Your task to perform on an android device: change alarm snooze length Image 0: 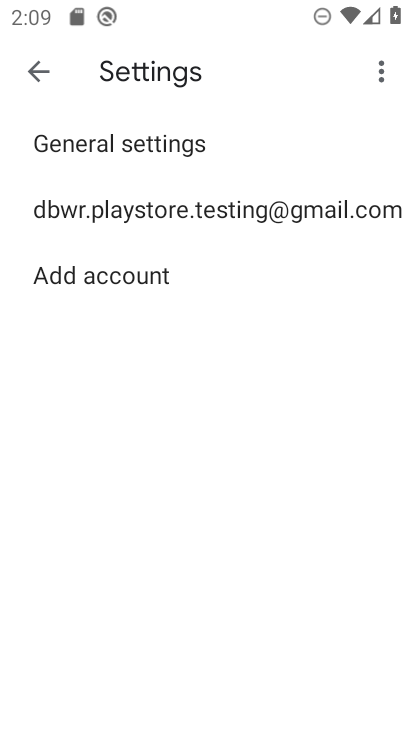
Step 0: press home button
Your task to perform on an android device: change alarm snooze length Image 1: 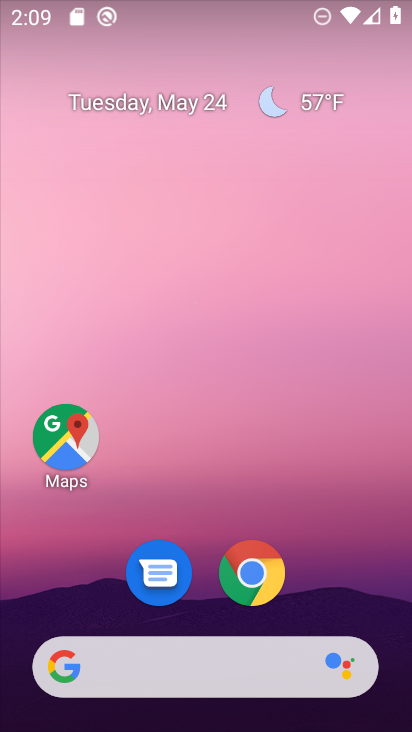
Step 1: drag from (337, 582) to (343, 162)
Your task to perform on an android device: change alarm snooze length Image 2: 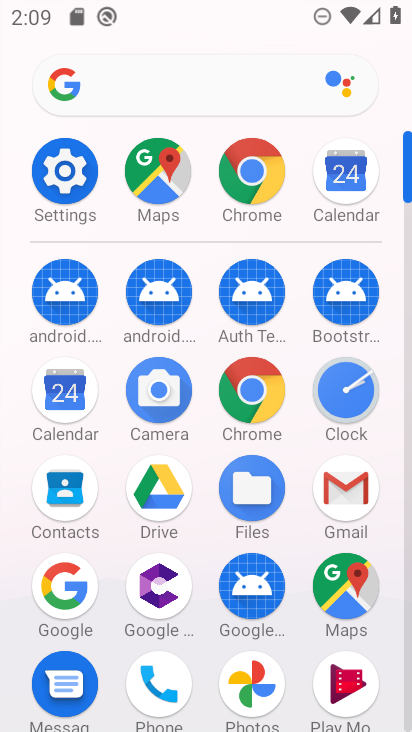
Step 2: click (68, 189)
Your task to perform on an android device: change alarm snooze length Image 3: 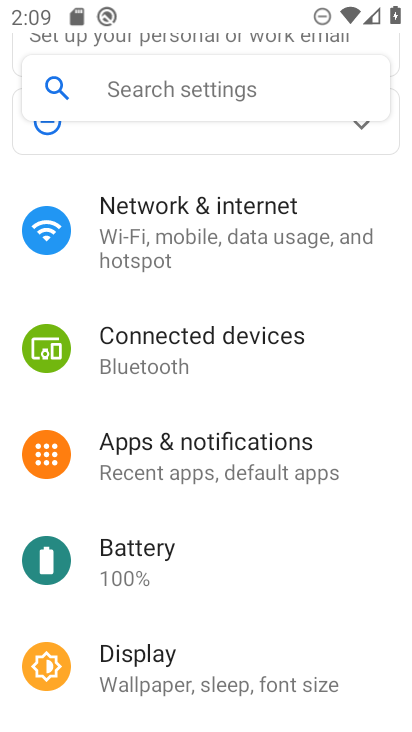
Step 3: drag from (251, 631) to (234, 396)
Your task to perform on an android device: change alarm snooze length Image 4: 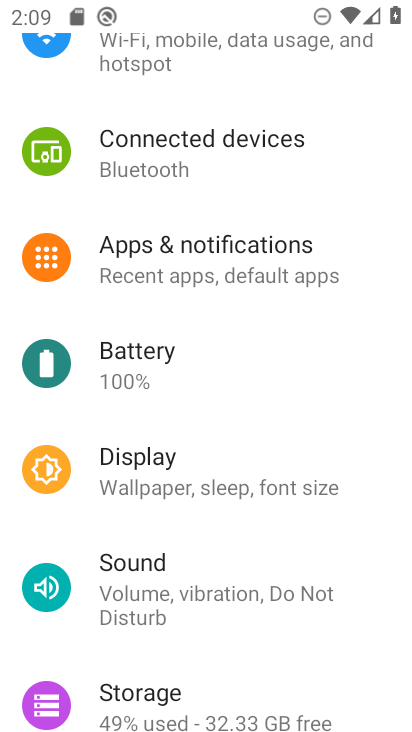
Step 4: press home button
Your task to perform on an android device: change alarm snooze length Image 5: 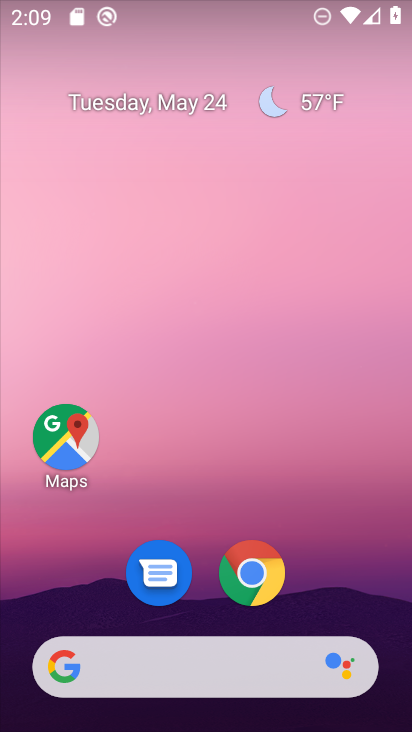
Step 5: drag from (374, 581) to (266, 199)
Your task to perform on an android device: change alarm snooze length Image 6: 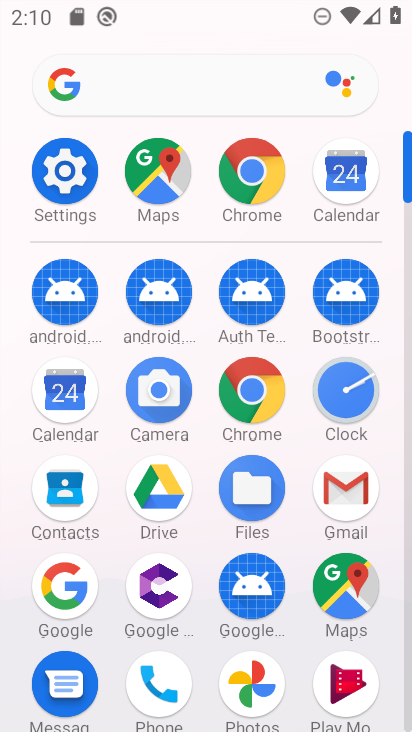
Step 6: click (341, 397)
Your task to perform on an android device: change alarm snooze length Image 7: 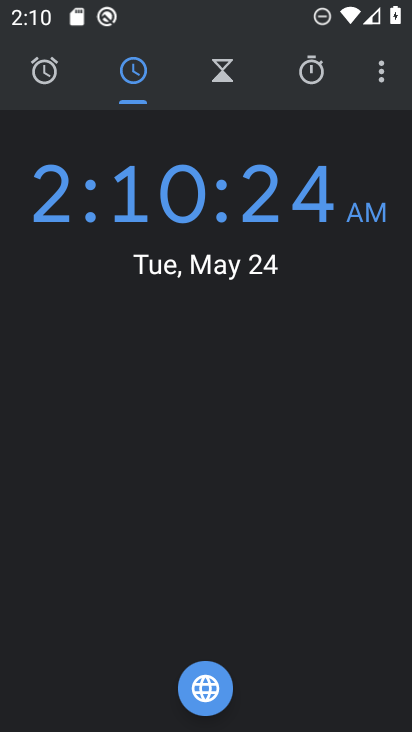
Step 7: click (56, 67)
Your task to perform on an android device: change alarm snooze length Image 8: 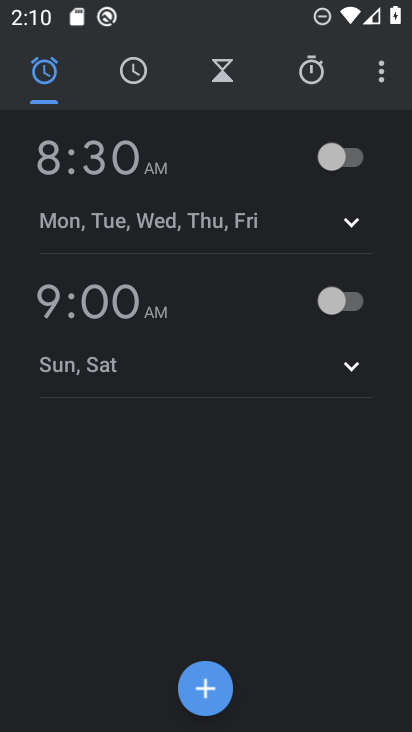
Step 8: click (205, 686)
Your task to perform on an android device: change alarm snooze length Image 9: 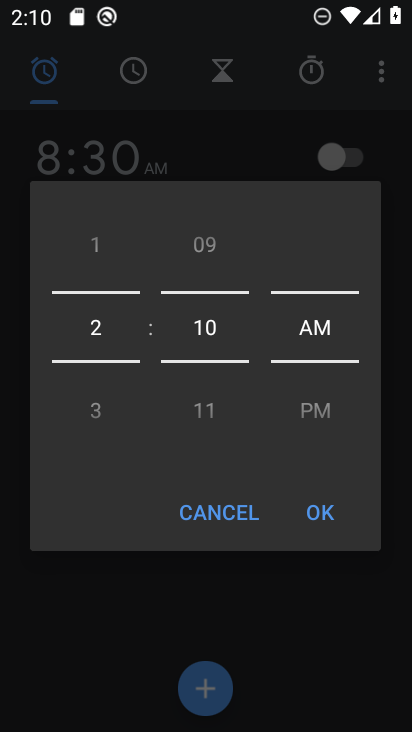
Step 9: click (241, 518)
Your task to perform on an android device: change alarm snooze length Image 10: 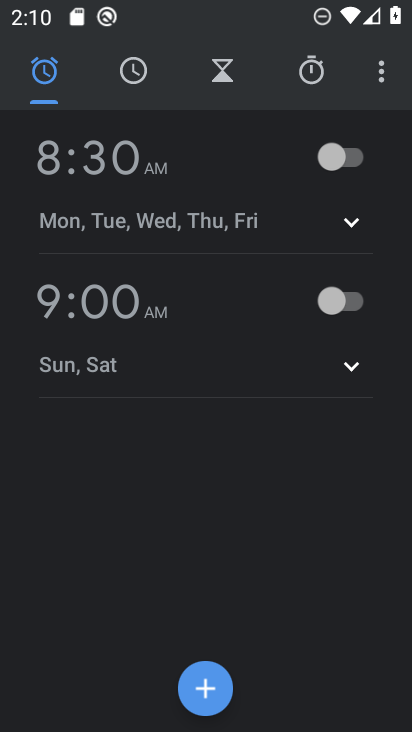
Step 10: click (372, 77)
Your task to perform on an android device: change alarm snooze length Image 11: 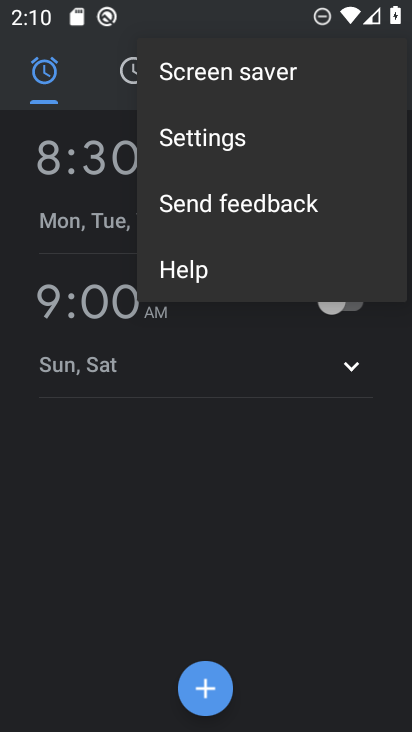
Step 11: click (245, 127)
Your task to perform on an android device: change alarm snooze length Image 12: 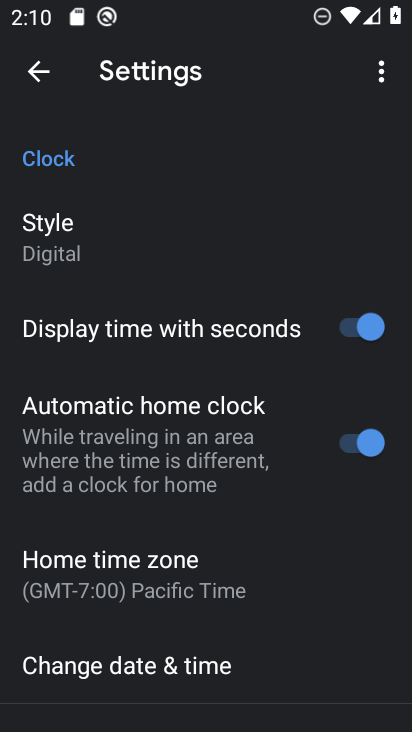
Step 12: drag from (219, 612) to (228, 295)
Your task to perform on an android device: change alarm snooze length Image 13: 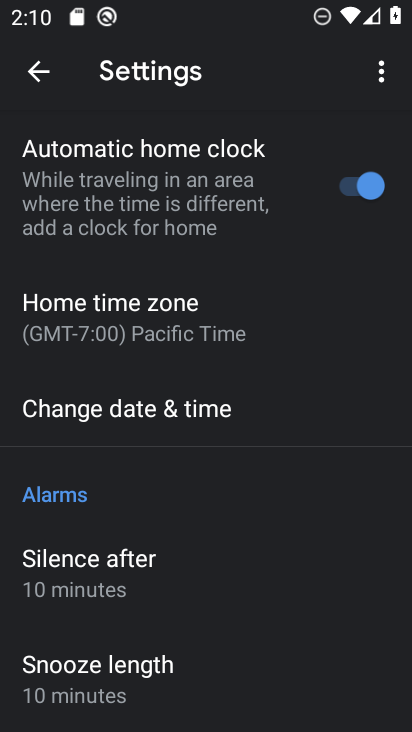
Step 13: click (170, 673)
Your task to perform on an android device: change alarm snooze length Image 14: 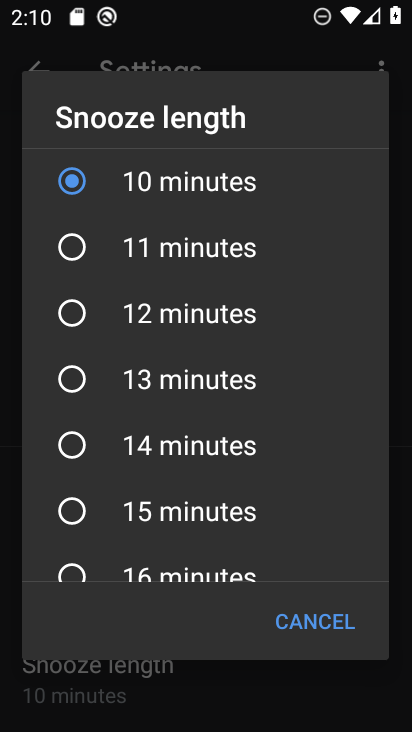
Step 14: click (178, 550)
Your task to perform on an android device: change alarm snooze length Image 15: 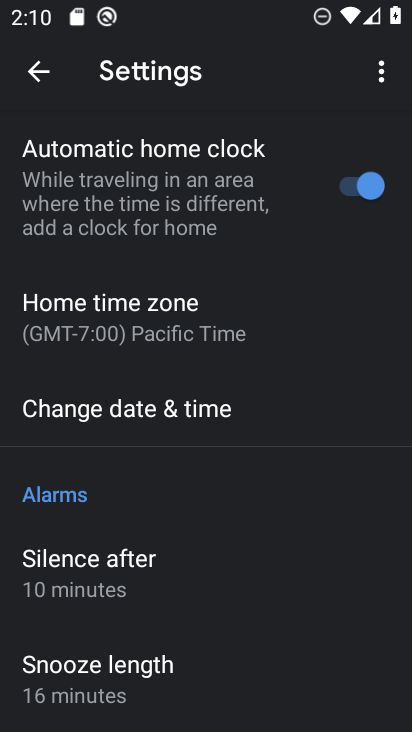
Step 15: task complete